Your task to perform on an android device: empty trash in google photos Image 0: 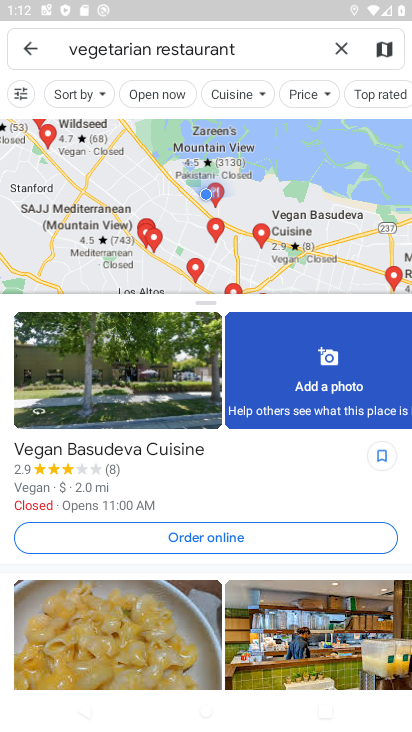
Step 0: press home button
Your task to perform on an android device: empty trash in google photos Image 1: 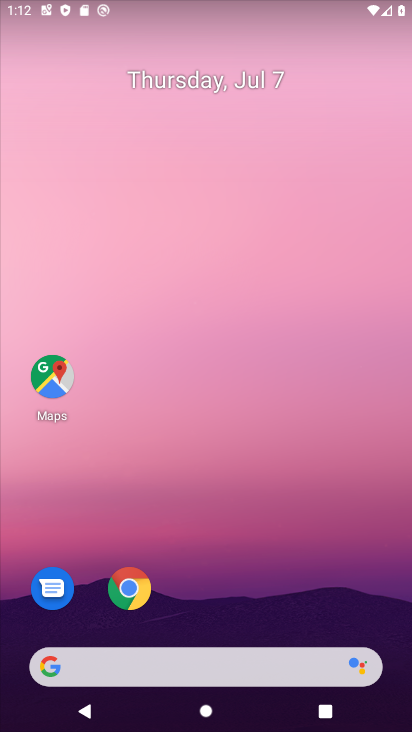
Step 1: drag from (281, 569) to (305, 241)
Your task to perform on an android device: empty trash in google photos Image 2: 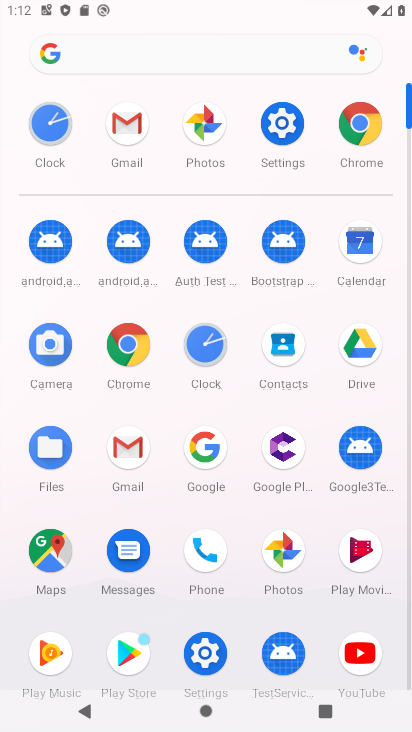
Step 2: click (133, 117)
Your task to perform on an android device: empty trash in google photos Image 3: 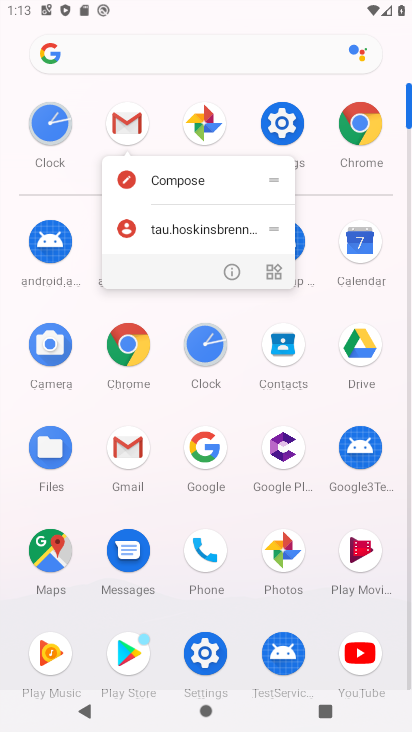
Step 3: click (123, 115)
Your task to perform on an android device: empty trash in google photos Image 4: 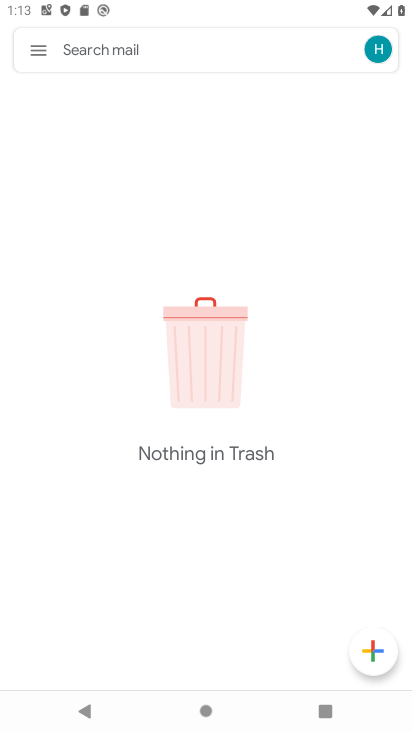
Step 4: click (37, 43)
Your task to perform on an android device: empty trash in google photos Image 5: 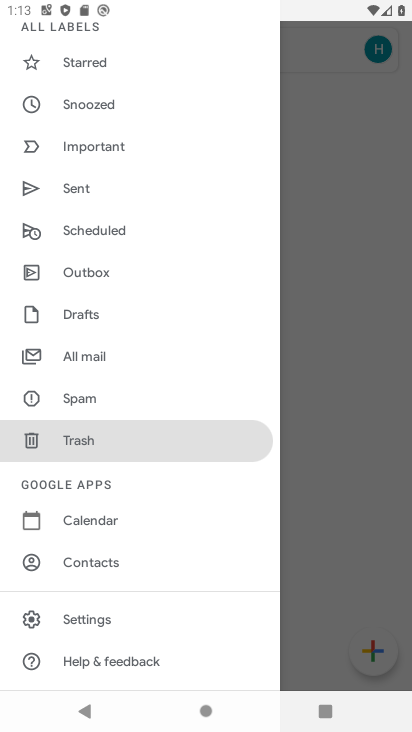
Step 5: click (124, 439)
Your task to perform on an android device: empty trash in google photos Image 6: 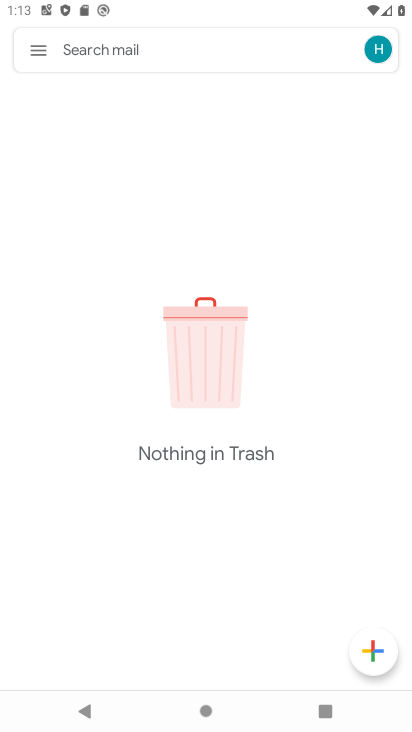
Step 6: task complete